Your task to perform on an android device: Open Amazon Image 0: 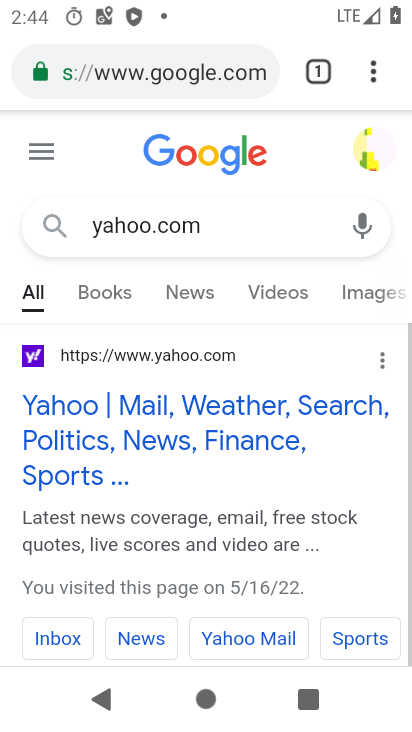
Step 0: press home button
Your task to perform on an android device: Open Amazon Image 1: 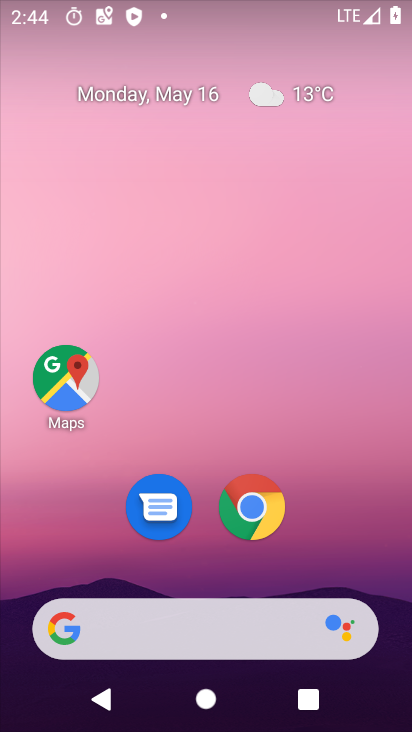
Step 1: drag from (361, 483) to (350, 121)
Your task to perform on an android device: Open Amazon Image 2: 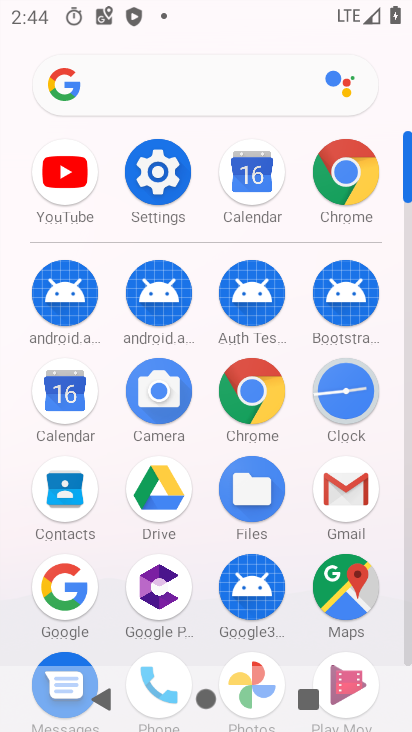
Step 2: click (247, 385)
Your task to perform on an android device: Open Amazon Image 3: 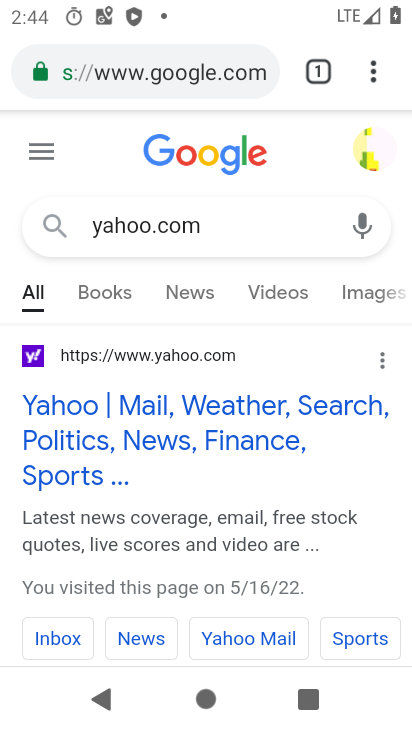
Step 3: press back button
Your task to perform on an android device: Open Amazon Image 4: 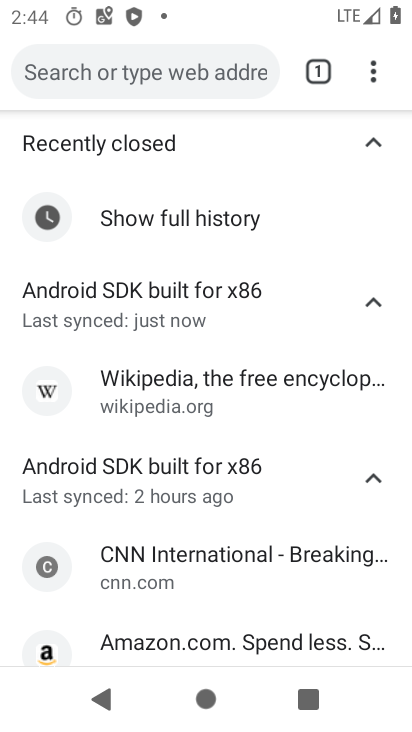
Step 4: press back button
Your task to perform on an android device: Open Amazon Image 5: 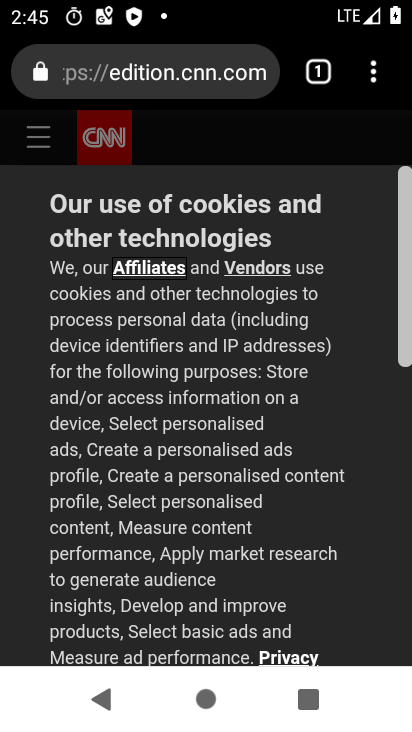
Step 5: press back button
Your task to perform on an android device: Open Amazon Image 6: 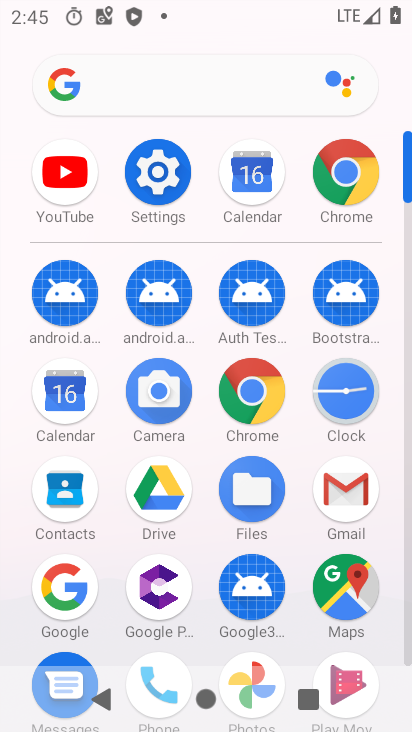
Step 6: click (254, 402)
Your task to perform on an android device: Open Amazon Image 7: 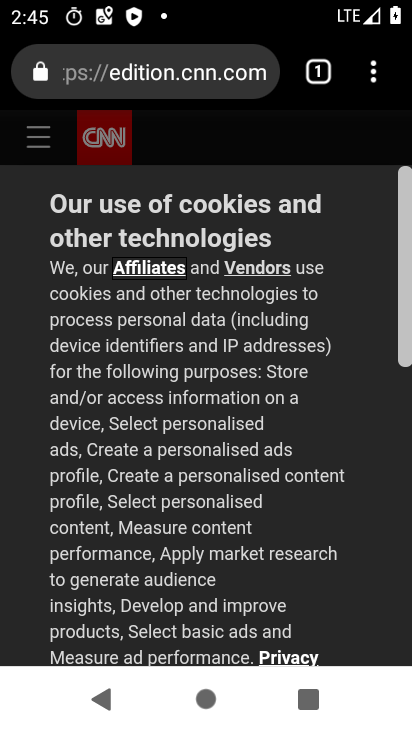
Step 7: click (164, 74)
Your task to perform on an android device: Open Amazon Image 8: 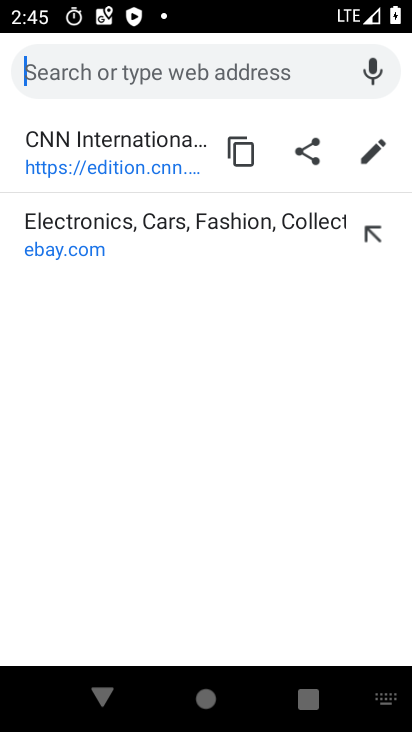
Step 8: type "amzone"
Your task to perform on an android device: Open Amazon Image 9: 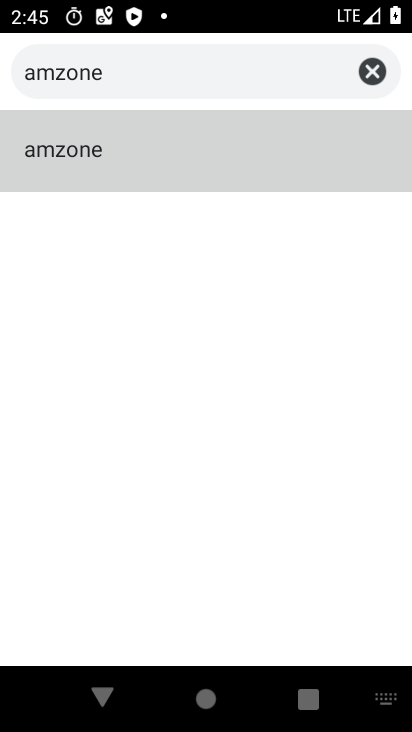
Step 9: click (89, 144)
Your task to perform on an android device: Open Amazon Image 10: 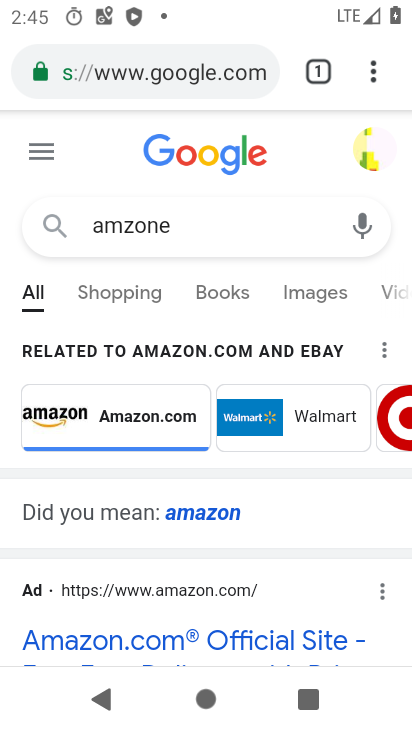
Step 10: click (236, 640)
Your task to perform on an android device: Open Amazon Image 11: 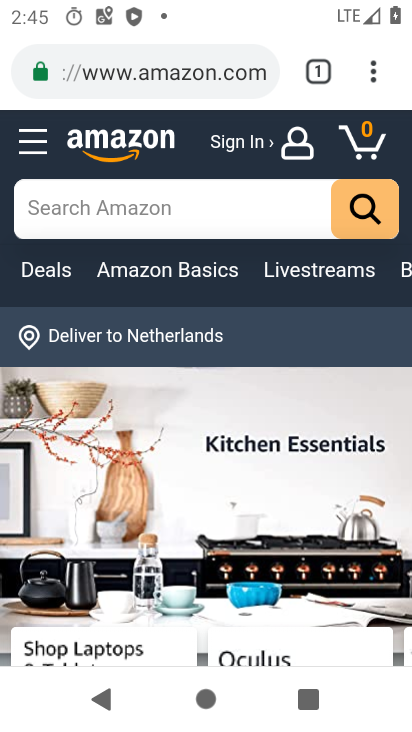
Step 11: task complete